Your task to perform on an android device: clear all cookies in the chrome app Image 0: 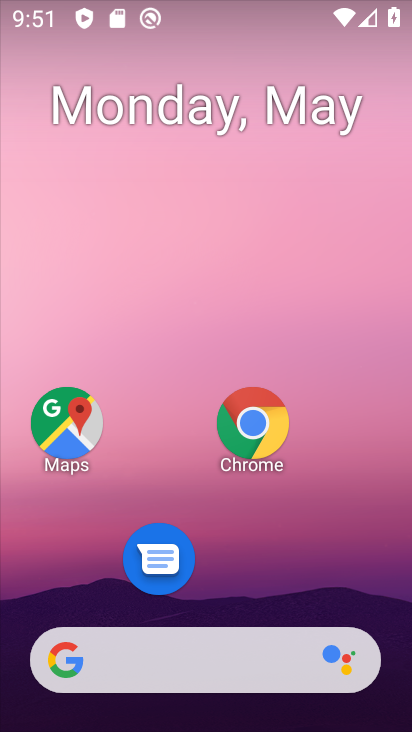
Step 0: click (258, 414)
Your task to perform on an android device: clear all cookies in the chrome app Image 1: 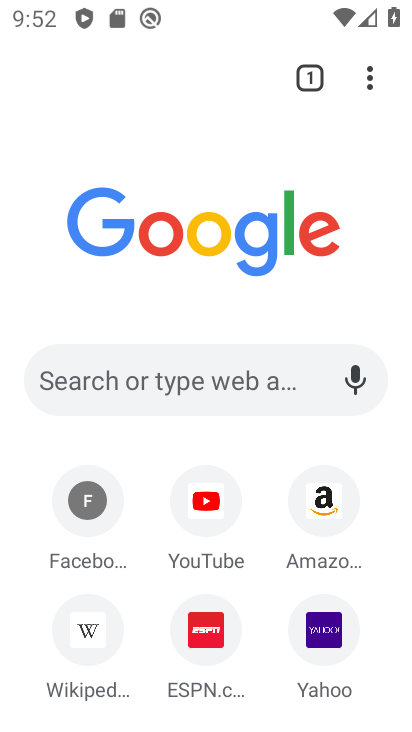
Step 1: click (378, 74)
Your task to perform on an android device: clear all cookies in the chrome app Image 2: 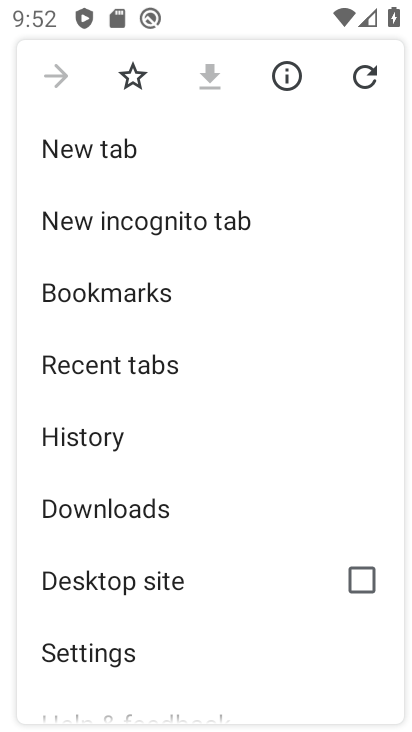
Step 2: click (141, 435)
Your task to perform on an android device: clear all cookies in the chrome app Image 3: 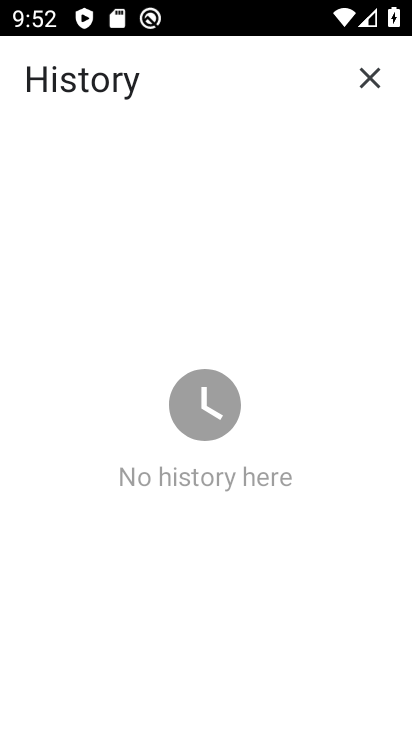
Step 3: task complete